Your task to perform on an android device: turn on the 12-hour format for clock Image 0: 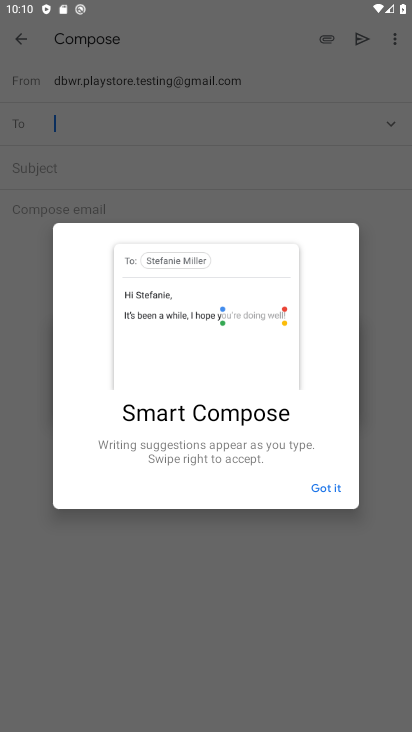
Step 0: press home button
Your task to perform on an android device: turn on the 12-hour format for clock Image 1: 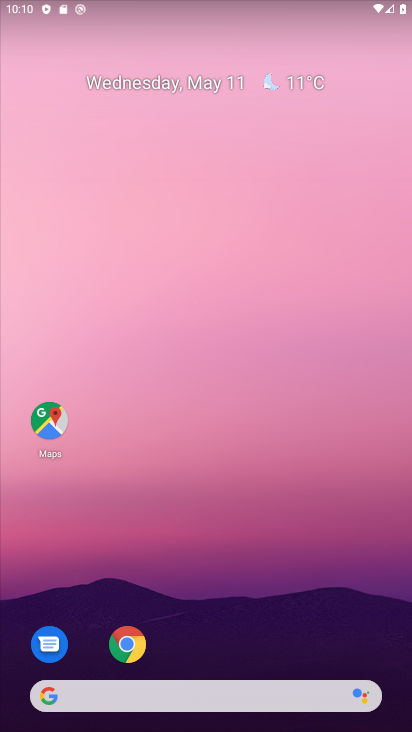
Step 1: drag from (316, 627) to (385, 1)
Your task to perform on an android device: turn on the 12-hour format for clock Image 2: 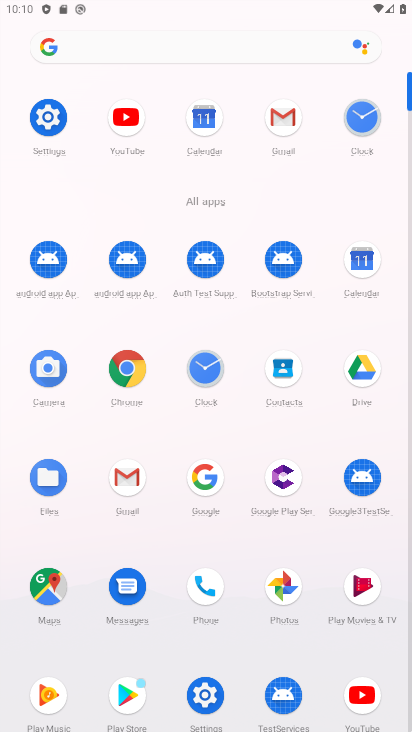
Step 2: click (365, 134)
Your task to perform on an android device: turn on the 12-hour format for clock Image 3: 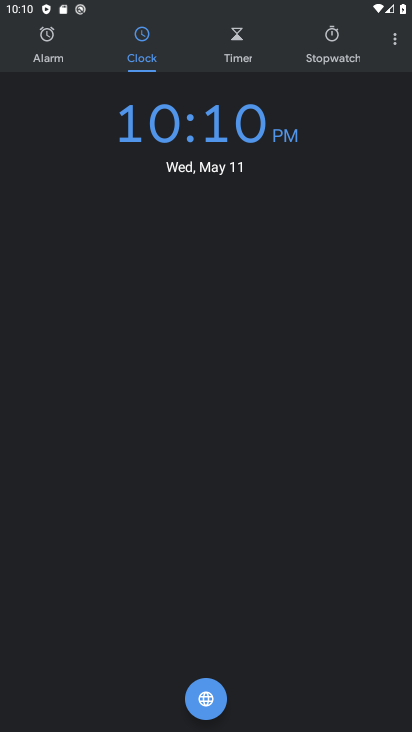
Step 3: click (391, 44)
Your task to perform on an android device: turn on the 12-hour format for clock Image 4: 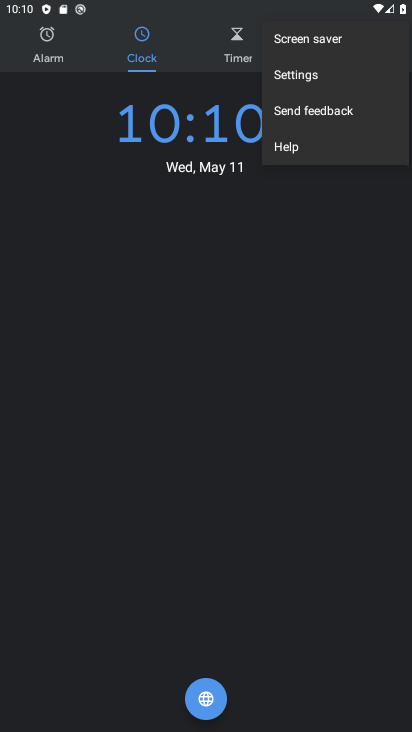
Step 4: click (299, 79)
Your task to perform on an android device: turn on the 12-hour format for clock Image 5: 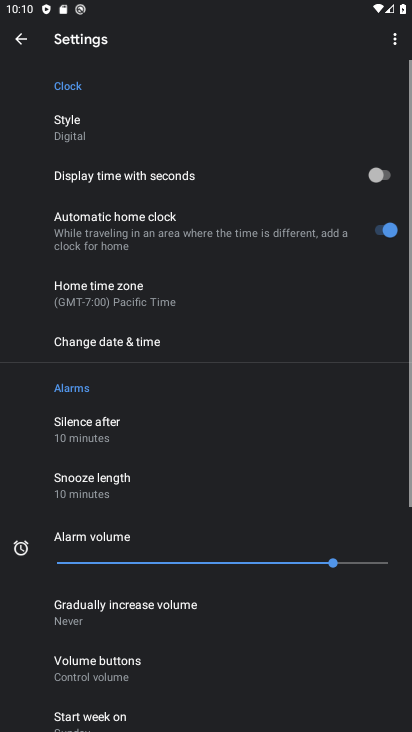
Step 5: click (116, 345)
Your task to perform on an android device: turn on the 12-hour format for clock Image 6: 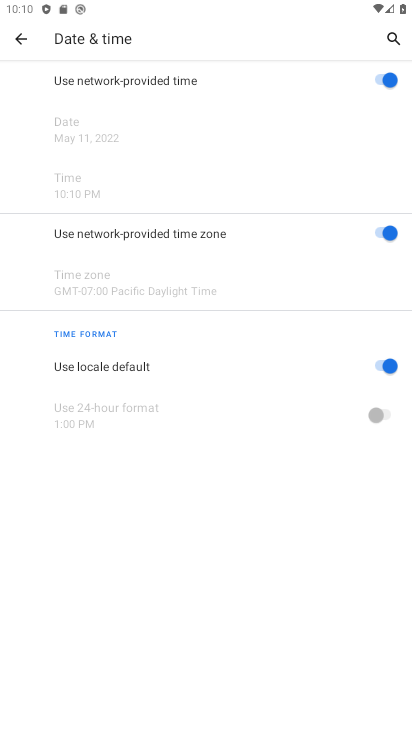
Step 6: task complete